Your task to perform on an android device: Turn off the flashlight Image 0: 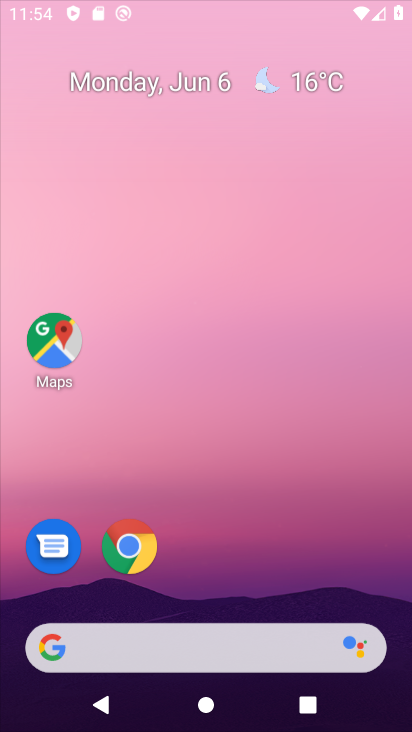
Step 0: click (262, 4)
Your task to perform on an android device: Turn off the flashlight Image 1: 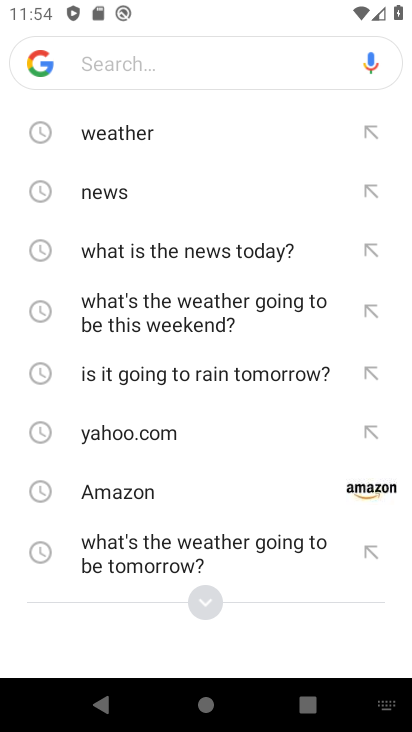
Step 1: press home button
Your task to perform on an android device: Turn off the flashlight Image 2: 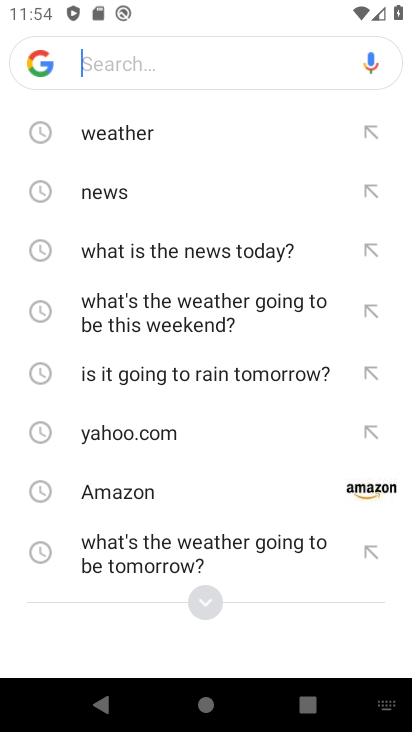
Step 2: press home button
Your task to perform on an android device: Turn off the flashlight Image 3: 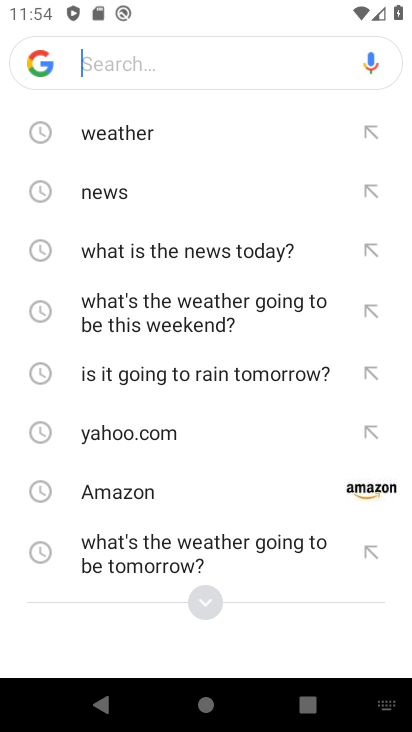
Step 3: drag from (214, 396) to (272, 169)
Your task to perform on an android device: Turn off the flashlight Image 4: 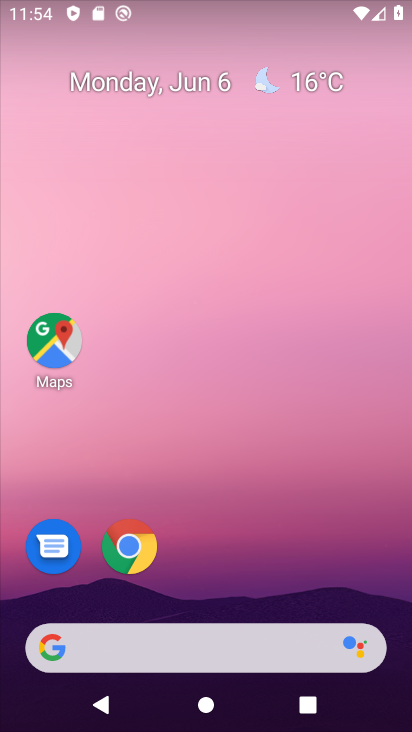
Step 4: drag from (217, 569) to (258, 232)
Your task to perform on an android device: Turn off the flashlight Image 5: 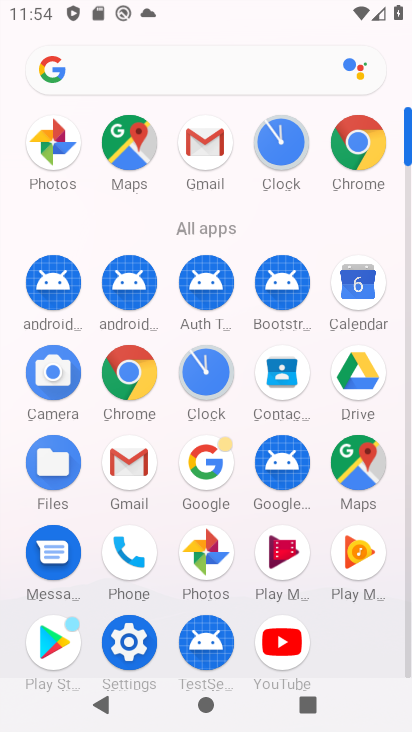
Step 5: click (122, 643)
Your task to perform on an android device: Turn off the flashlight Image 6: 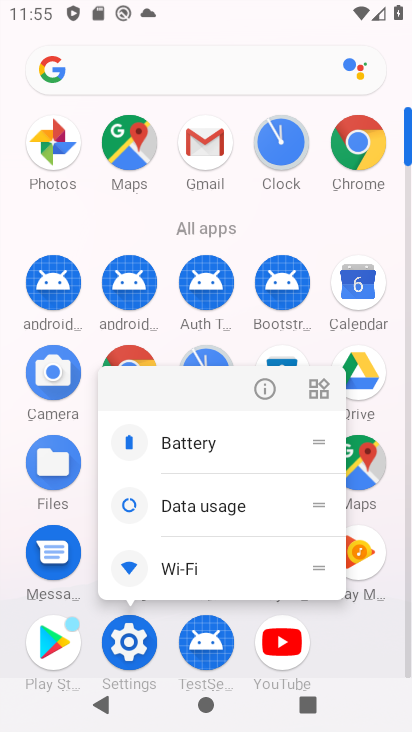
Step 6: click (261, 392)
Your task to perform on an android device: Turn off the flashlight Image 7: 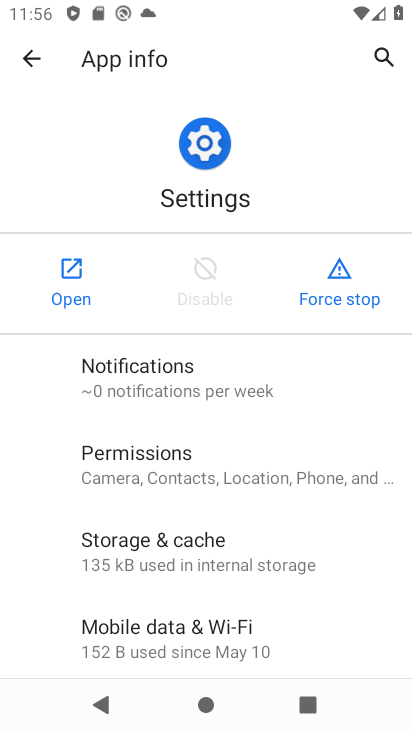
Step 7: click (58, 263)
Your task to perform on an android device: Turn off the flashlight Image 8: 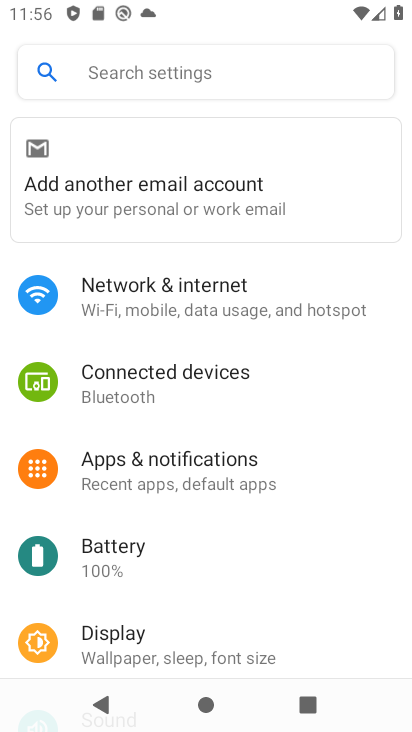
Step 8: click (176, 64)
Your task to perform on an android device: Turn off the flashlight Image 9: 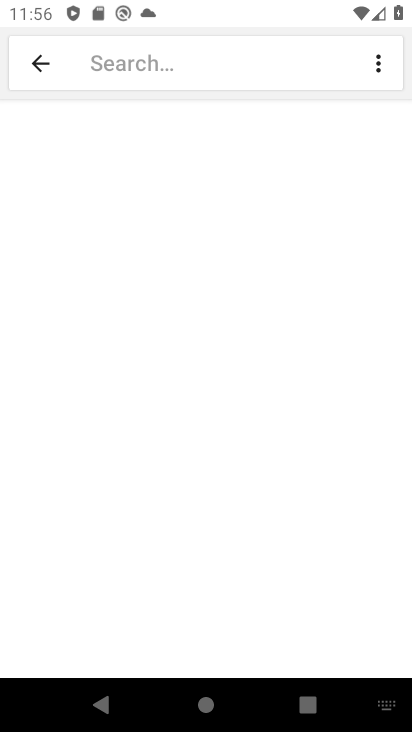
Step 9: type "flashlight"
Your task to perform on an android device: Turn off the flashlight Image 10: 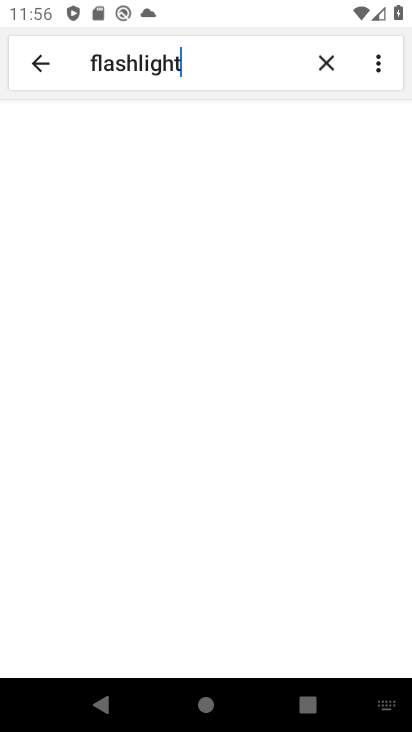
Step 10: click (157, 132)
Your task to perform on an android device: Turn off the flashlight Image 11: 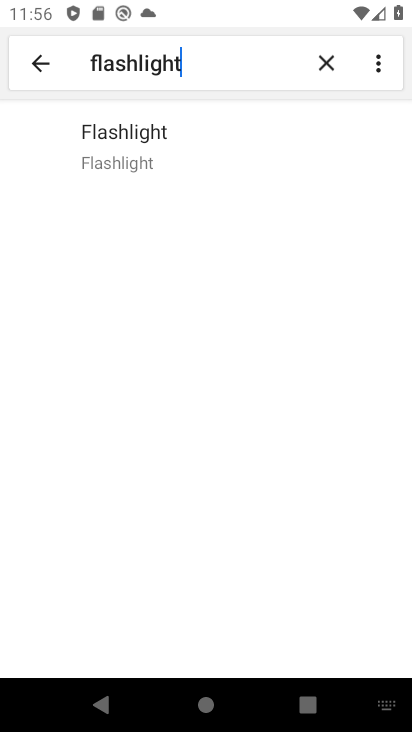
Step 11: click (161, 159)
Your task to perform on an android device: Turn off the flashlight Image 12: 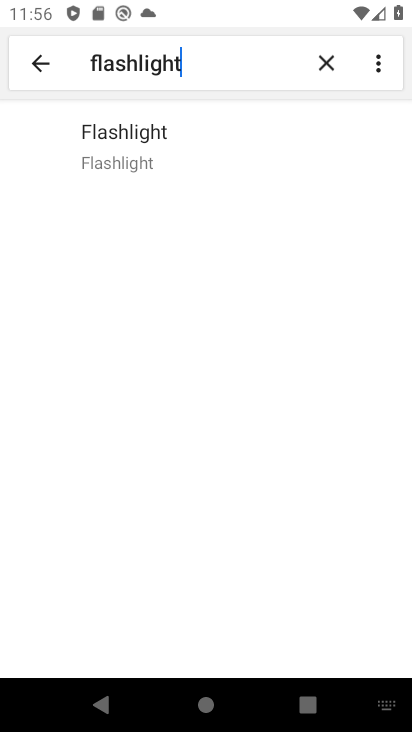
Step 12: task complete